Your task to perform on an android device: open a bookmark in the chrome app Image 0: 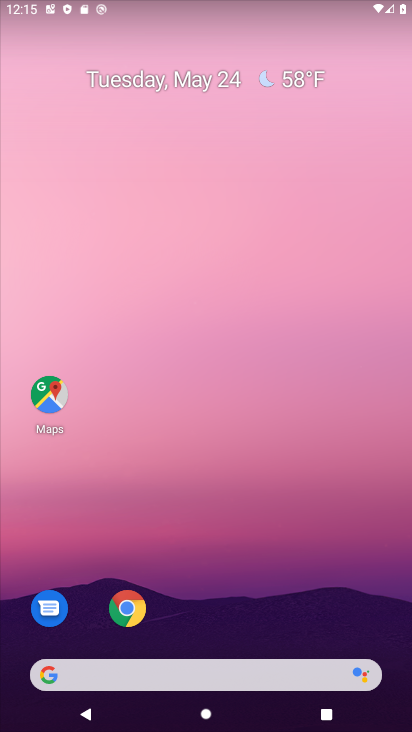
Step 0: drag from (269, 693) to (334, 119)
Your task to perform on an android device: open a bookmark in the chrome app Image 1: 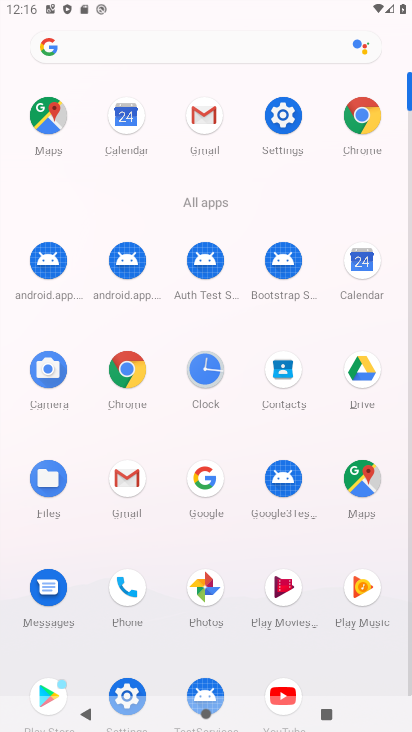
Step 1: click (347, 128)
Your task to perform on an android device: open a bookmark in the chrome app Image 2: 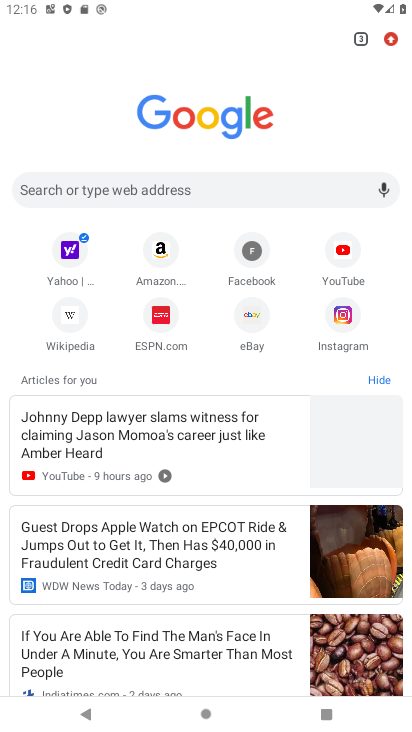
Step 2: click (385, 41)
Your task to perform on an android device: open a bookmark in the chrome app Image 3: 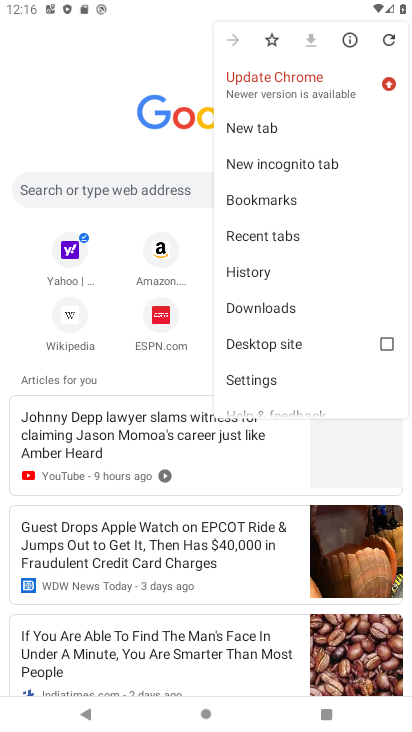
Step 3: click (278, 207)
Your task to perform on an android device: open a bookmark in the chrome app Image 4: 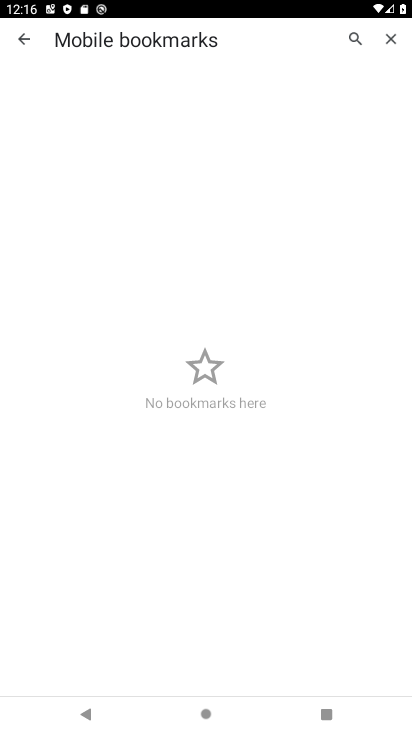
Step 4: task complete